Your task to perform on an android device: uninstall "LinkedIn" Image 0: 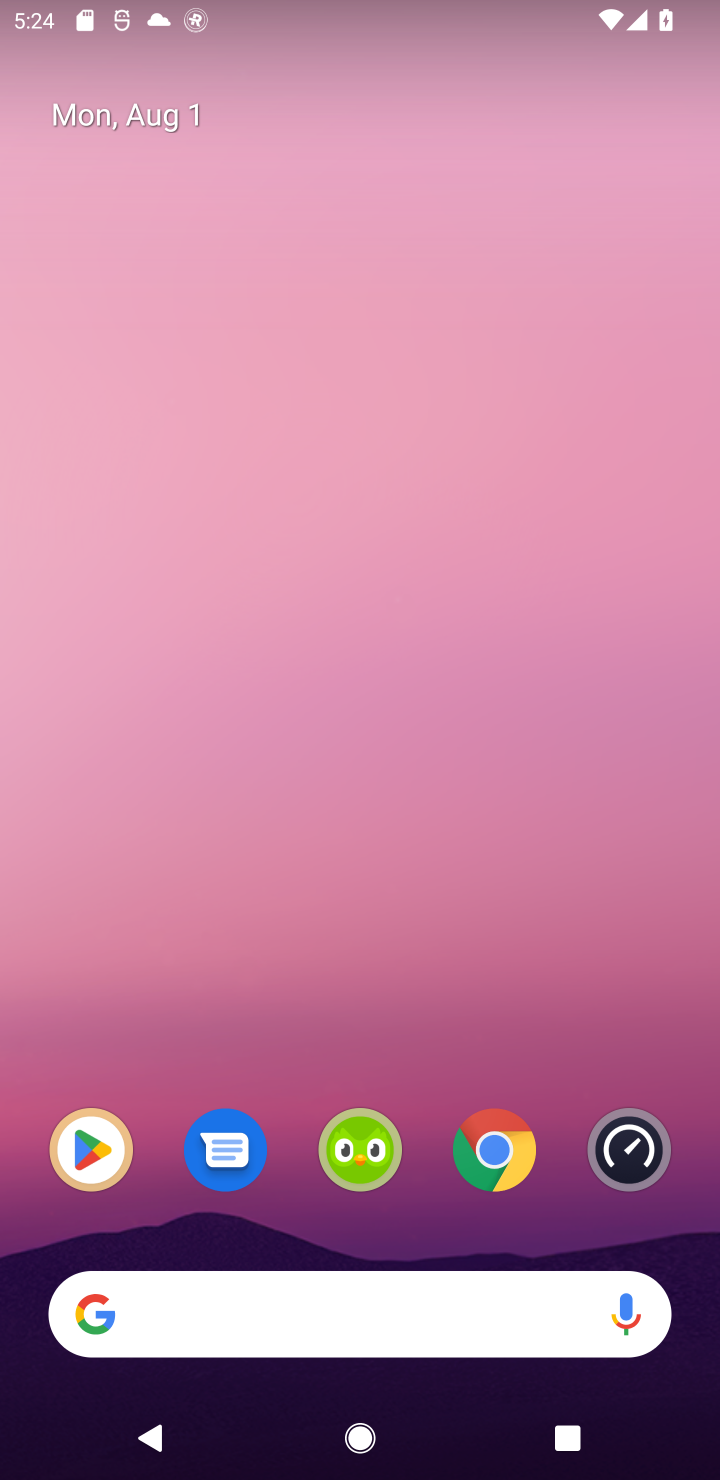
Step 0: click (63, 1157)
Your task to perform on an android device: uninstall "LinkedIn" Image 1: 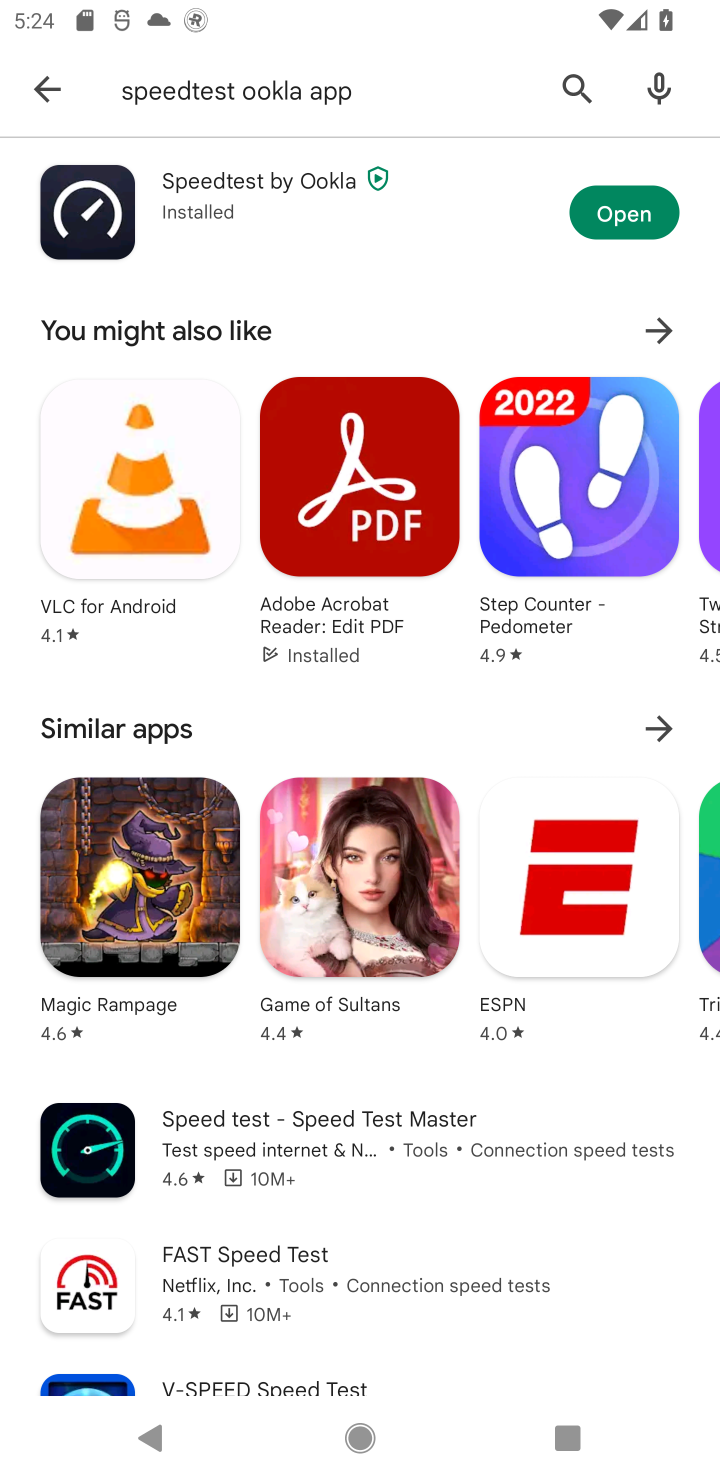
Step 1: click (567, 99)
Your task to perform on an android device: uninstall "LinkedIn" Image 2: 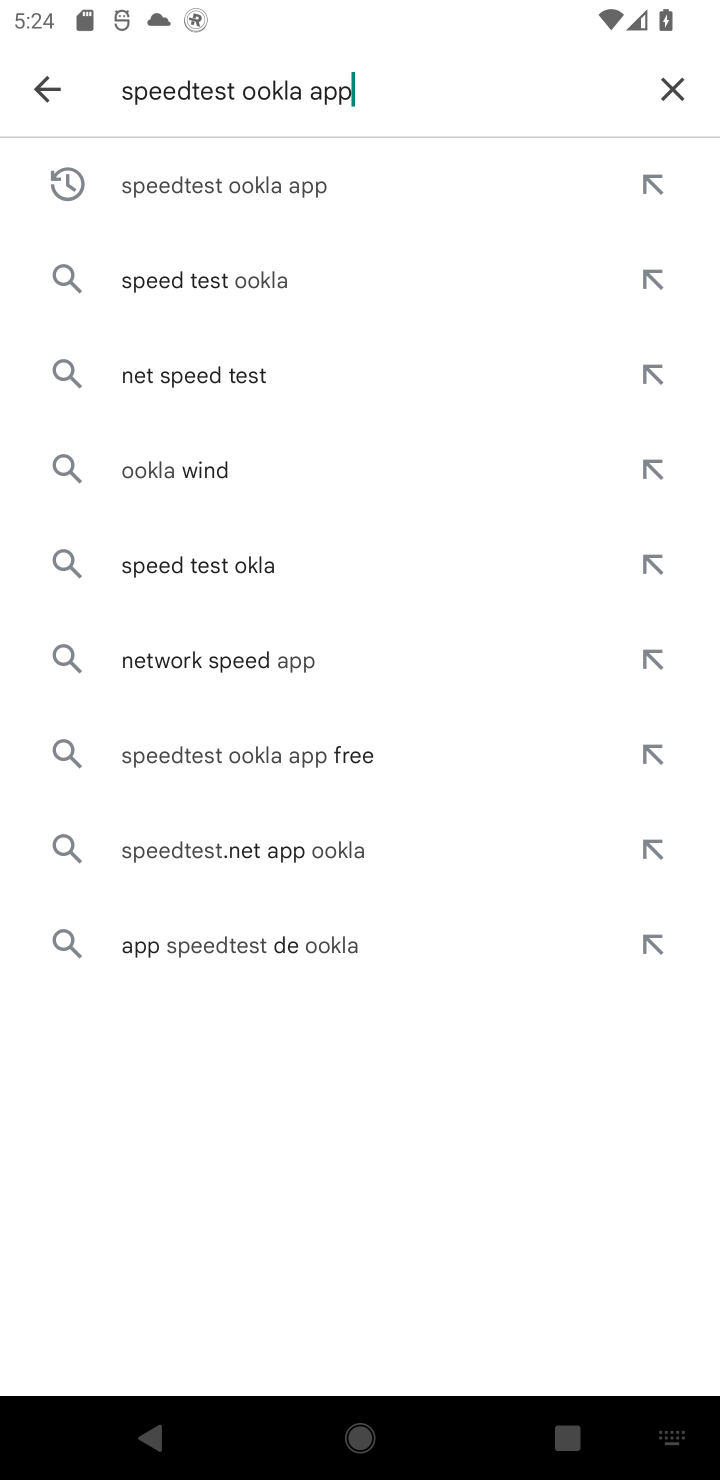
Step 2: click (661, 101)
Your task to perform on an android device: uninstall "LinkedIn" Image 3: 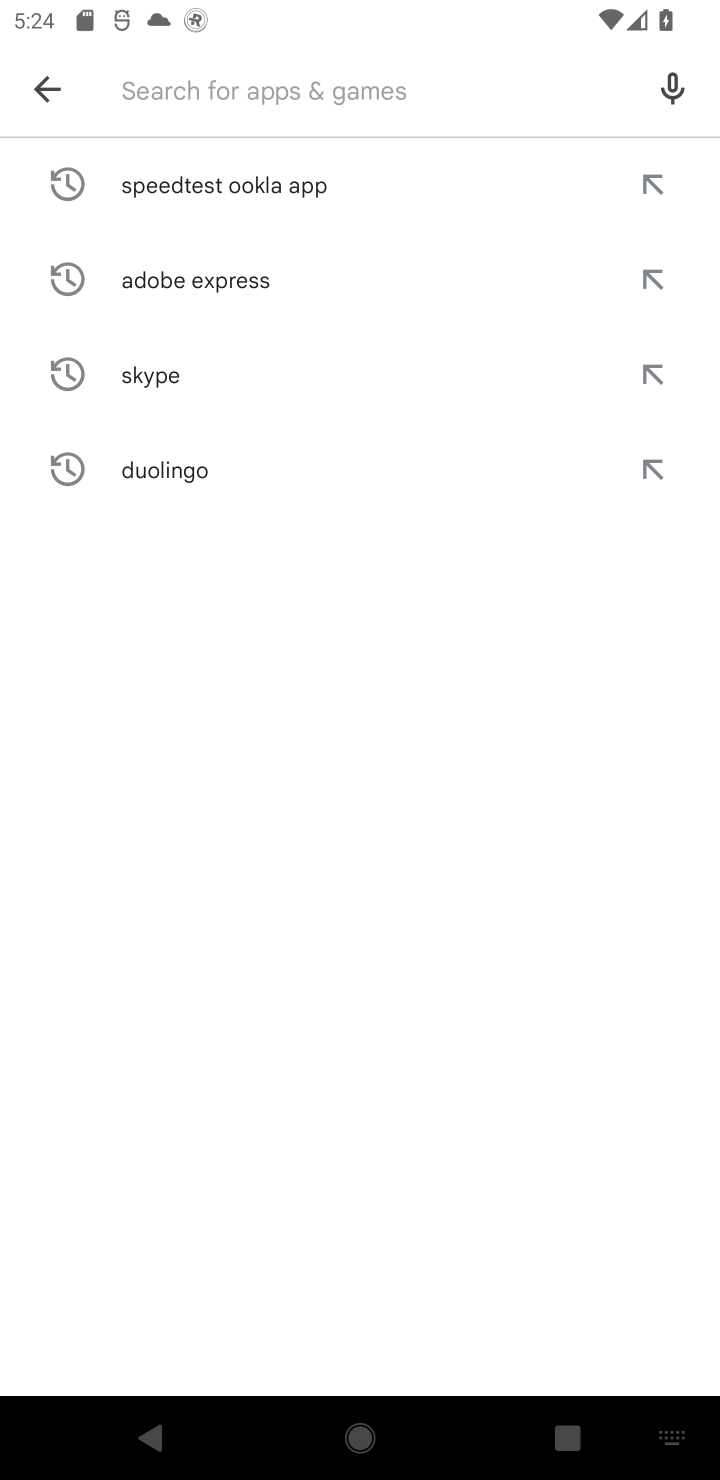
Step 3: type "linkedin"
Your task to perform on an android device: uninstall "LinkedIn" Image 4: 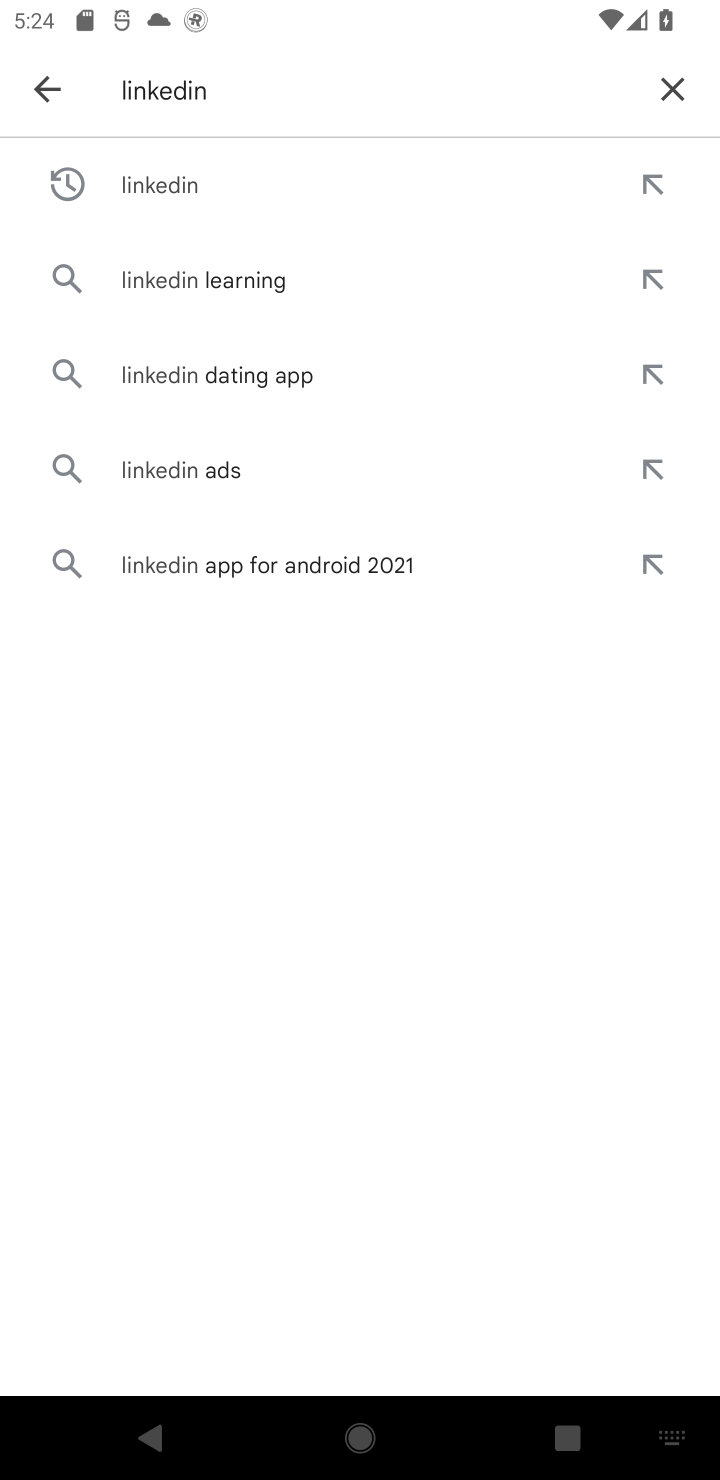
Step 4: click (234, 190)
Your task to perform on an android device: uninstall "LinkedIn" Image 5: 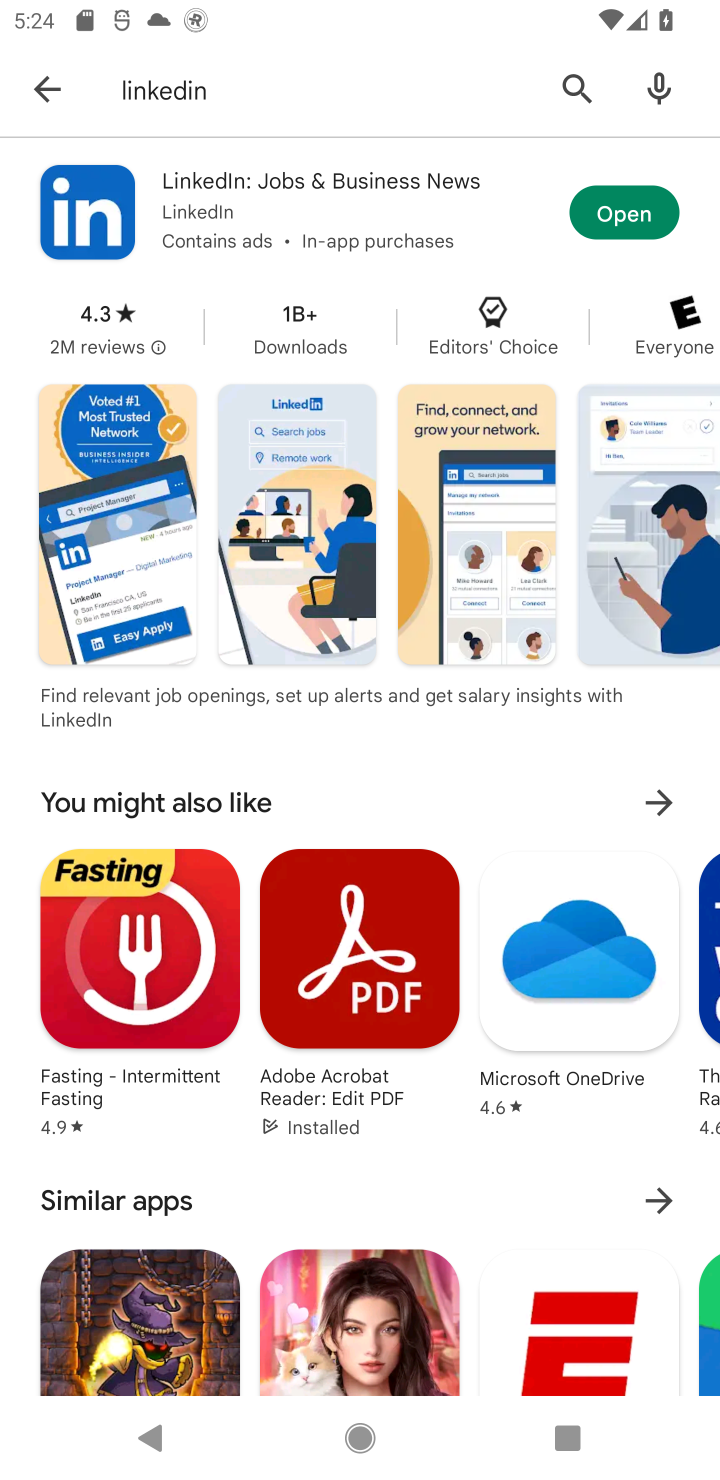
Step 5: click (633, 218)
Your task to perform on an android device: uninstall "LinkedIn" Image 6: 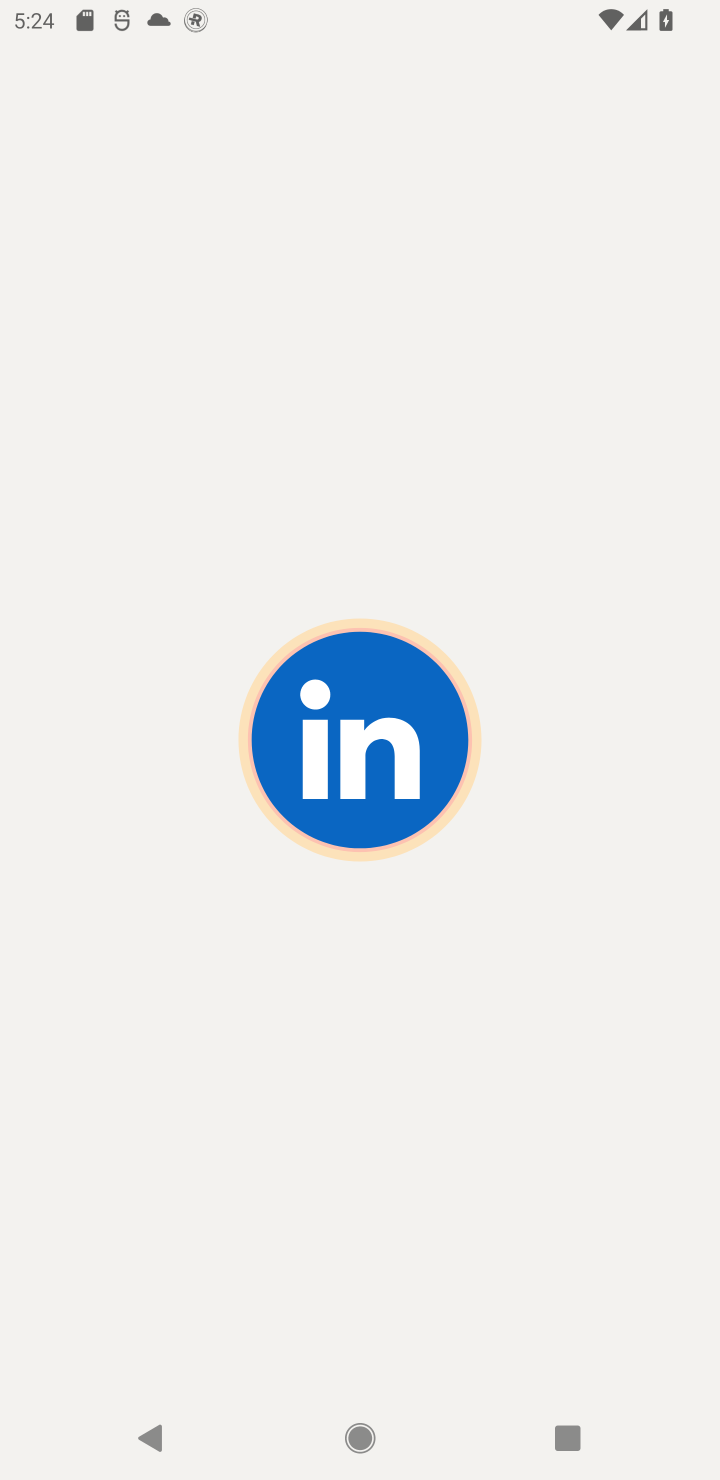
Step 6: task complete